Your task to perform on an android device: read, delete, or share a saved page in the chrome app Image 0: 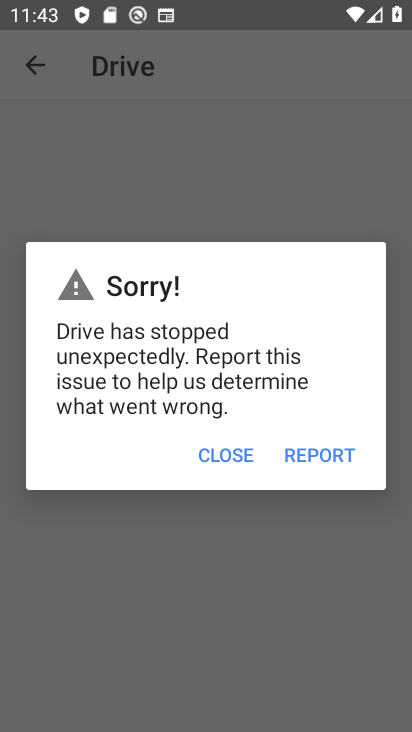
Step 0: press home button
Your task to perform on an android device: read, delete, or share a saved page in the chrome app Image 1: 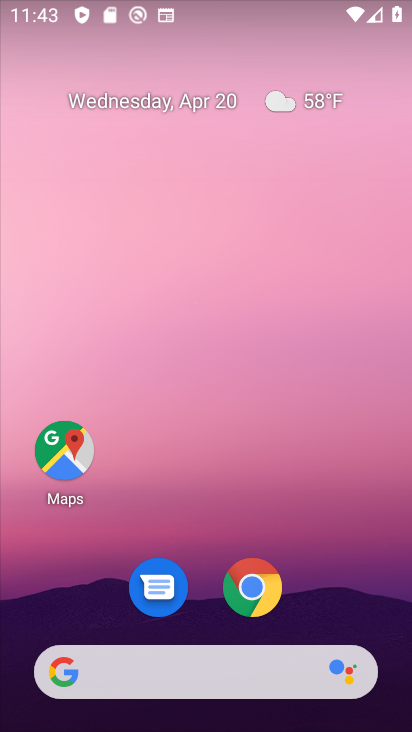
Step 1: click (258, 598)
Your task to perform on an android device: read, delete, or share a saved page in the chrome app Image 2: 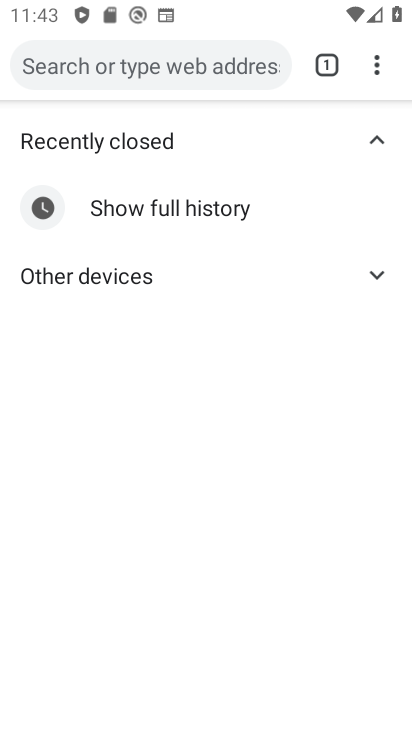
Step 2: click (383, 61)
Your task to perform on an android device: read, delete, or share a saved page in the chrome app Image 3: 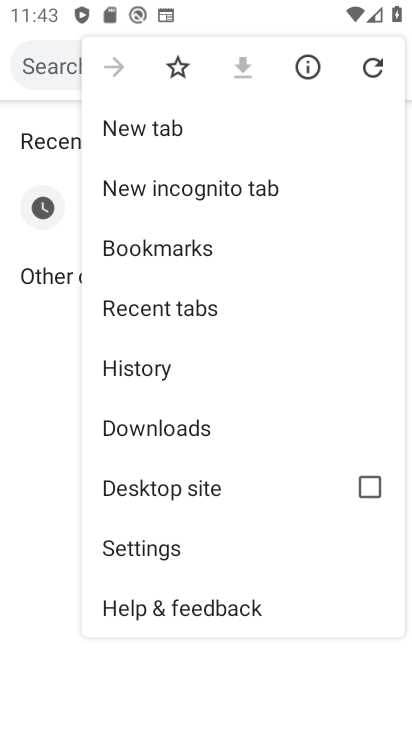
Step 3: click (155, 418)
Your task to perform on an android device: read, delete, or share a saved page in the chrome app Image 4: 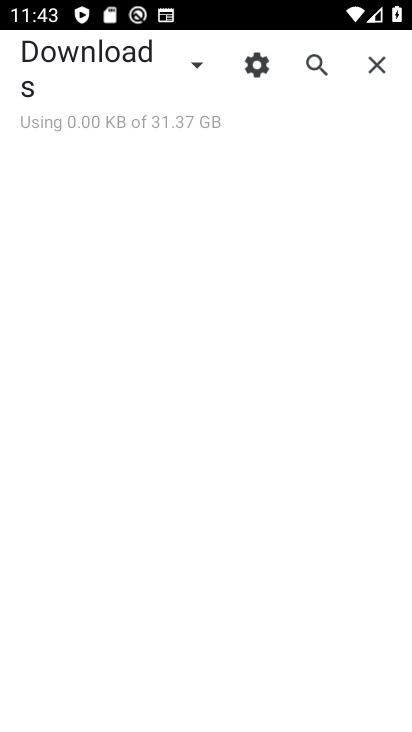
Step 4: task complete